Your task to perform on an android device: Check the weather Image 0: 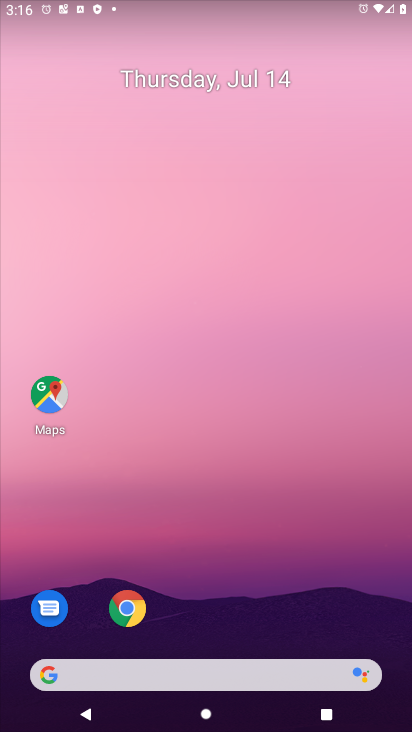
Step 0: drag from (3, 253) to (410, 142)
Your task to perform on an android device: Check the weather Image 1: 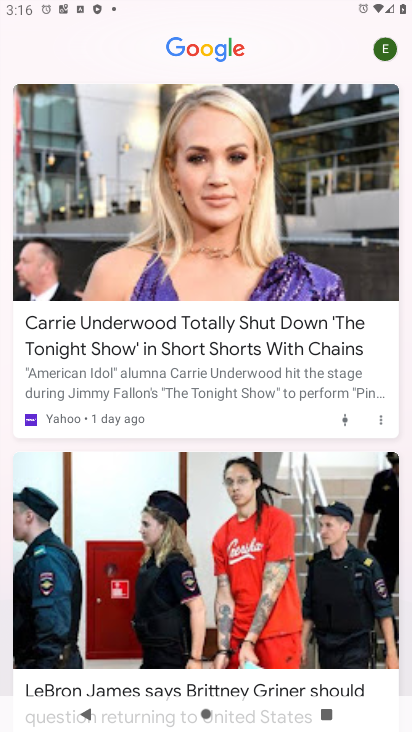
Step 1: task complete